Your task to perform on an android device: Open wifi settings Image 0: 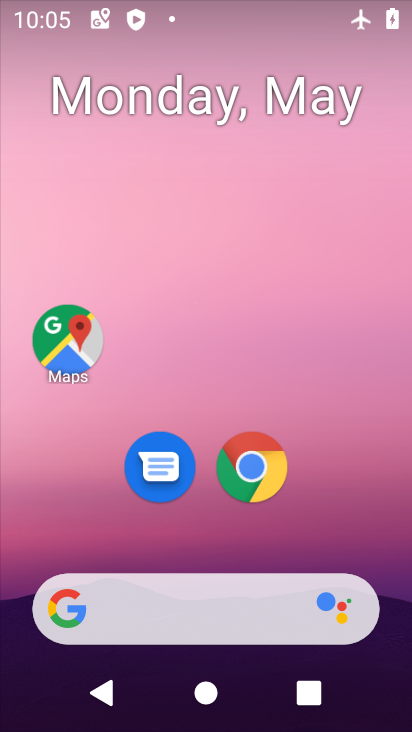
Step 0: drag from (393, 613) to (370, 59)
Your task to perform on an android device: Open wifi settings Image 1: 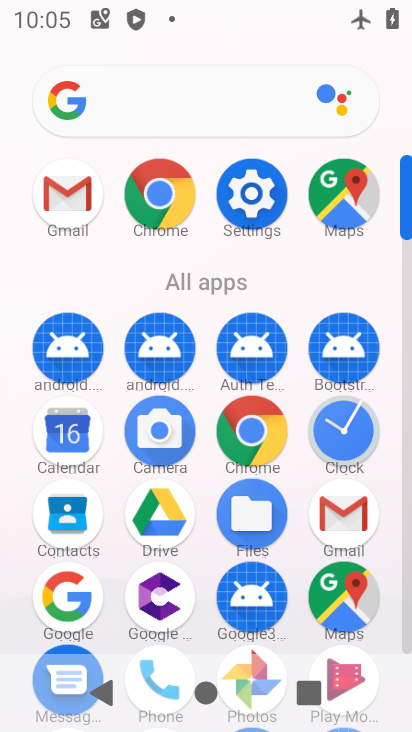
Step 1: click (407, 650)
Your task to perform on an android device: Open wifi settings Image 2: 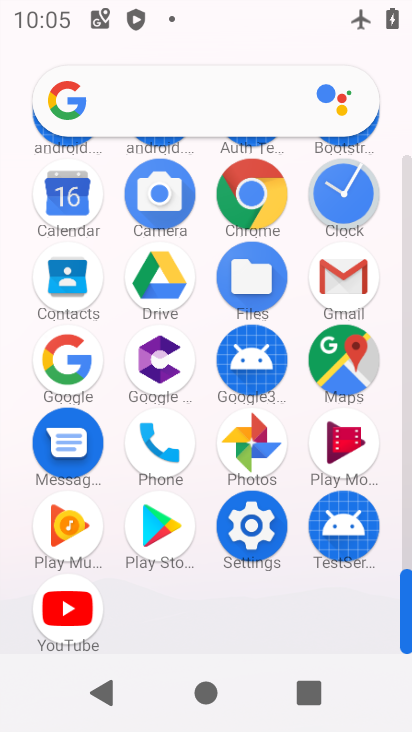
Step 2: click (253, 525)
Your task to perform on an android device: Open wifi settings Image 3: 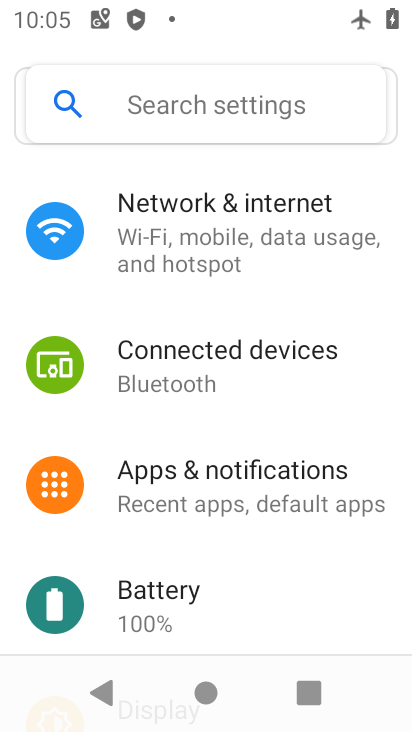
Step 3: click (179, 240)
Your task to perform on an android device: Open wifi settings Image 4: 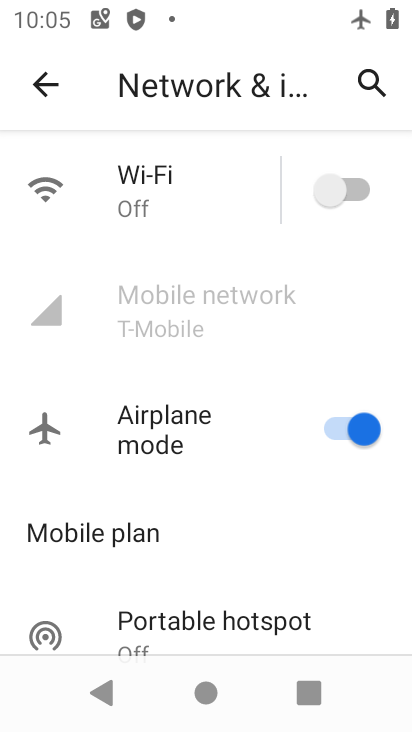
Step 4: click (70, 183)
Your task to perform on an android device: Open wifi settings Image 5: 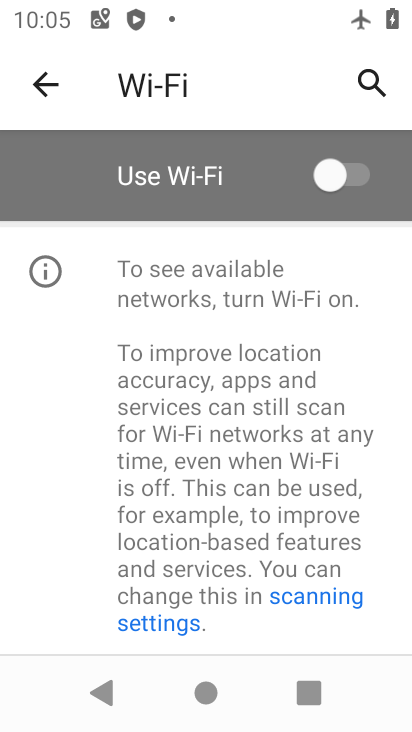
Step 5: task complete